Your task to perform on an android device: change the clock display to show seconds Image 0: 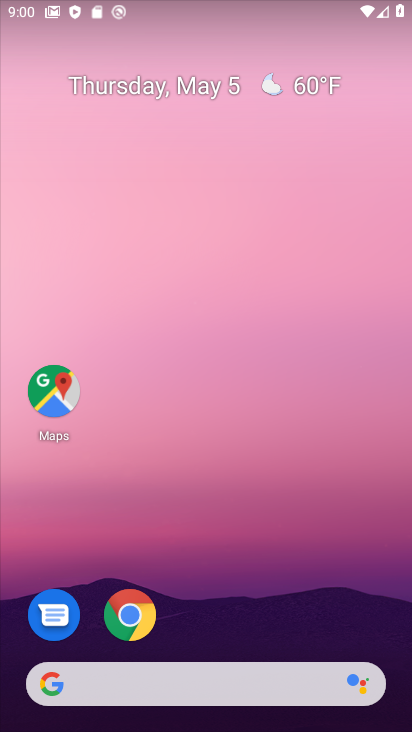
Step 0: drag from (254, 615) to (265, 114)
Your task to perform on an android device: change the clock display to show seconds Image 1: 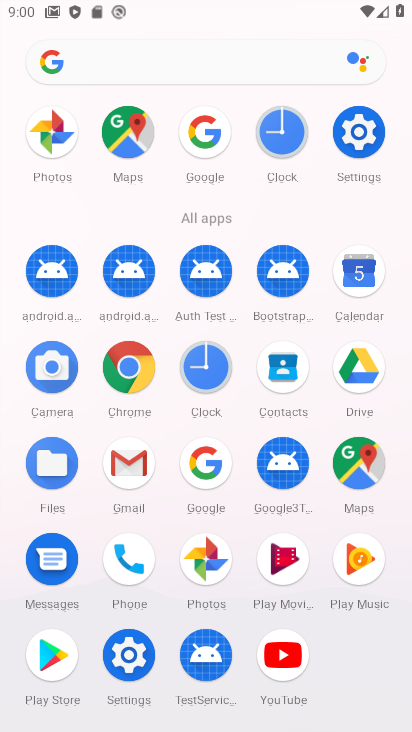
Step 1: click (280, 132)
Your task to perform on an android device: change the clock display to show seconds Image 2: 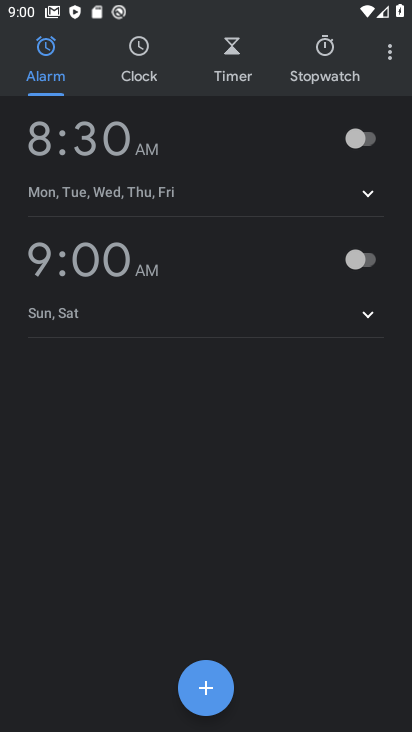
Step 2: click (384, 43)
Your task to perform on an android device: change the clock display to show seconds Image 3: 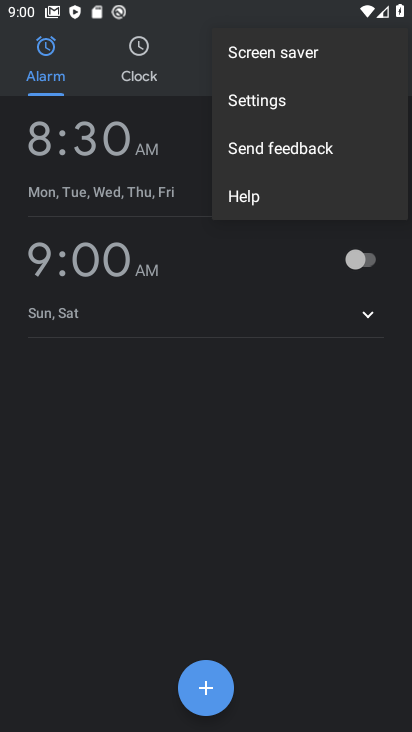
Step 3: click (273, 111)
Your task to perform on an android device: change the clock display to show seconds Image 4: 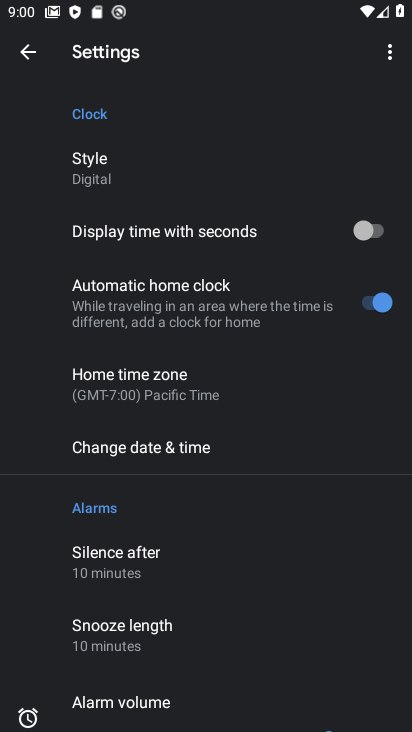
Step 4: click (373, 232)
Your task to perform on an android device: change the clock display to show seconds Image 5: 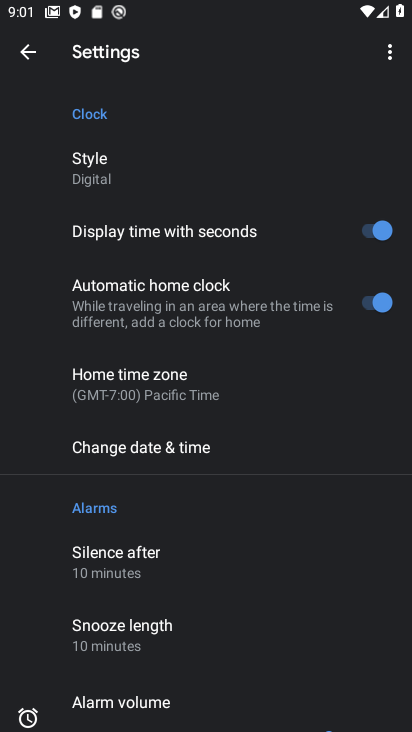
Step 5: task complete